Your task to perform on an android device: set the timer Image 0: 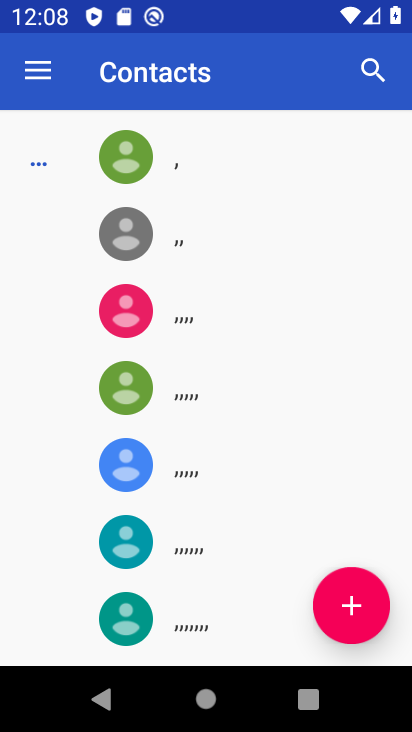
Step 0: press home button
Your task to perform on an android device: set the timer Image 1: 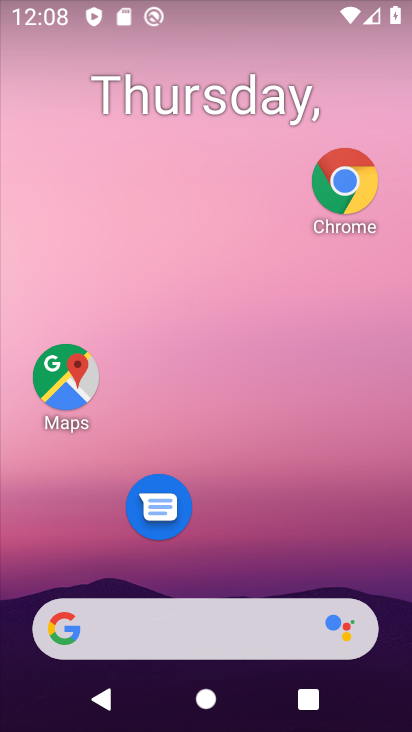
Step 1: drag from (294, 573) to (405, 198)
Your task to perform on an android device: set the timer Image 2: 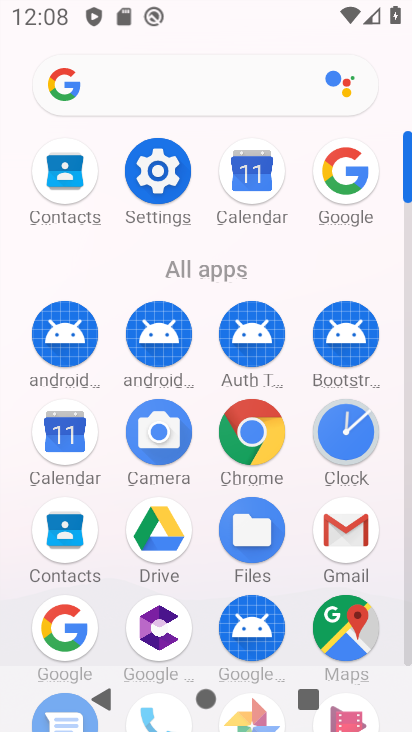
Step 2: click (350, 436)
Your task to perform on an android device: set the timer Image 3: 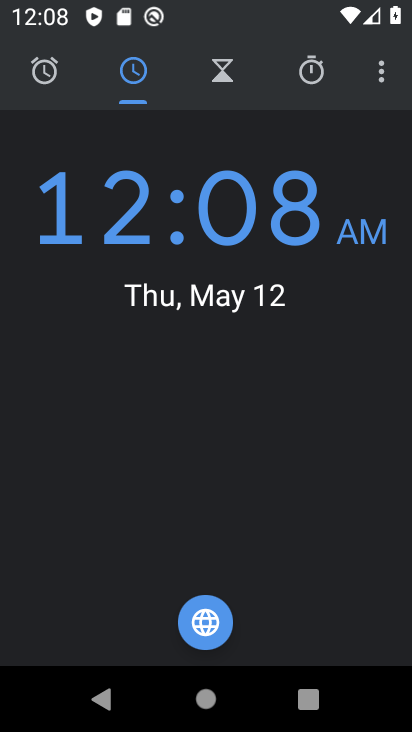
Step 3: click (222, 87)
Your task to perform on an android device: set the timer Image 4: 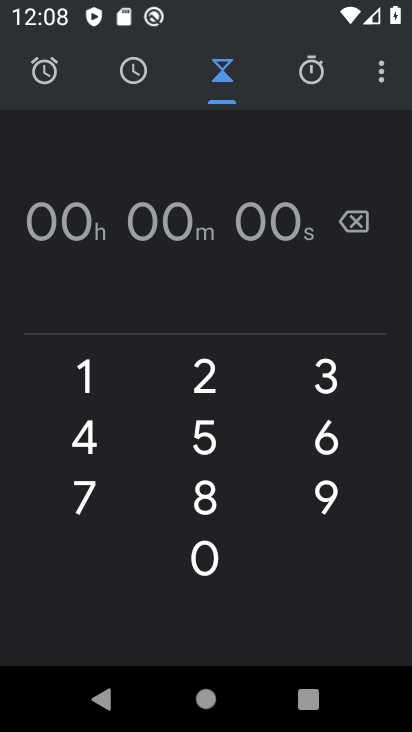
Step 4: click (205, 373)
Your task to perform on an android device: set the timer Image 5: 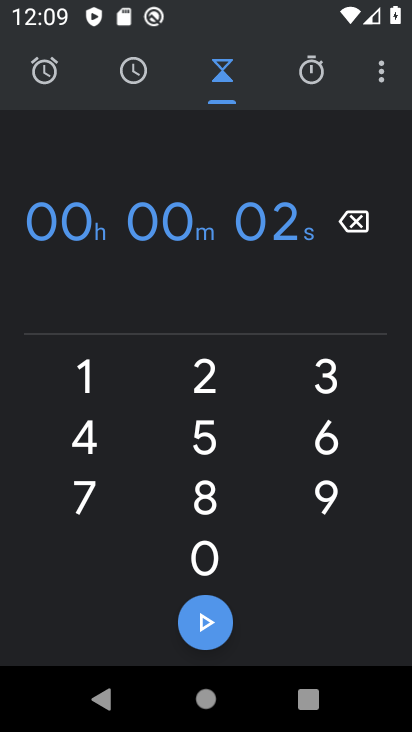
Step 5: click (210, 620)
Your task to perform on an android device: set the timer Image 6: 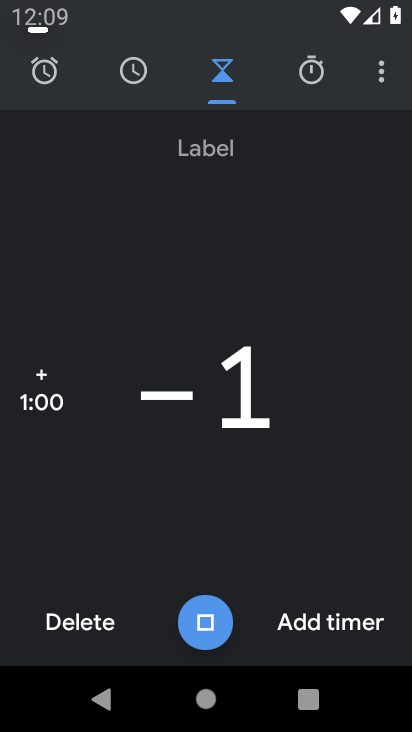
Step 6: task complete